Your task to perform on an android device: star an email in the gmail app Image 0: 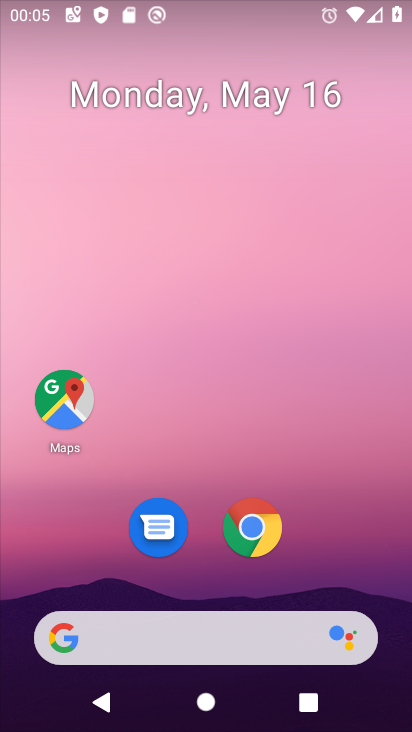
Step 0: drag from (366, 573) to (279, 177)
Your task to perform on an android device: star an email in the gmail app Image 1: 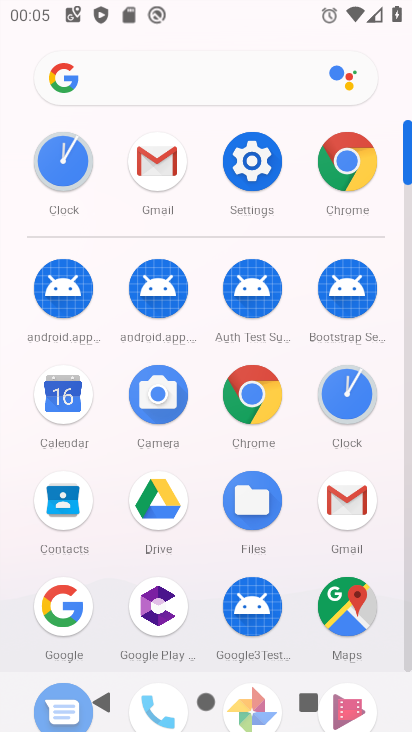
Step 1: click (140, 187)
Your task to perform on an android device: star an email in the gmail app Image 2: 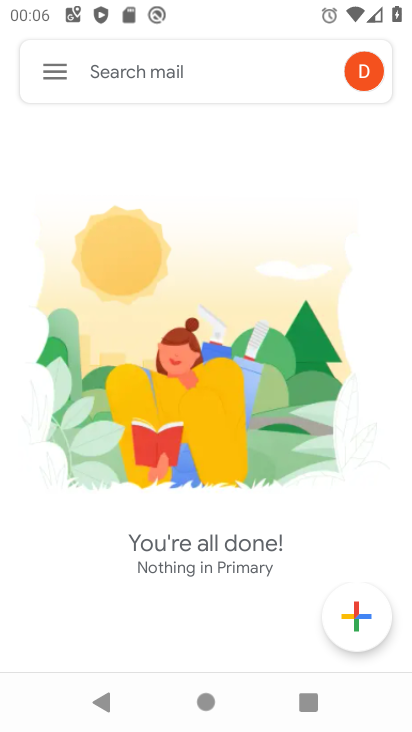
Step 2: click (51, 84)
Your task to perform on an android device: star an email in the gmail app Image 3: 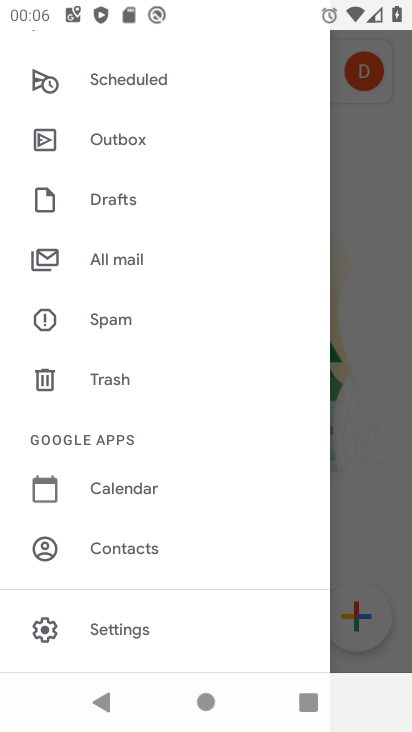
Step 3: click (111, 246)
Your task to perform on an android device: star an email in the gmail app Image 4: 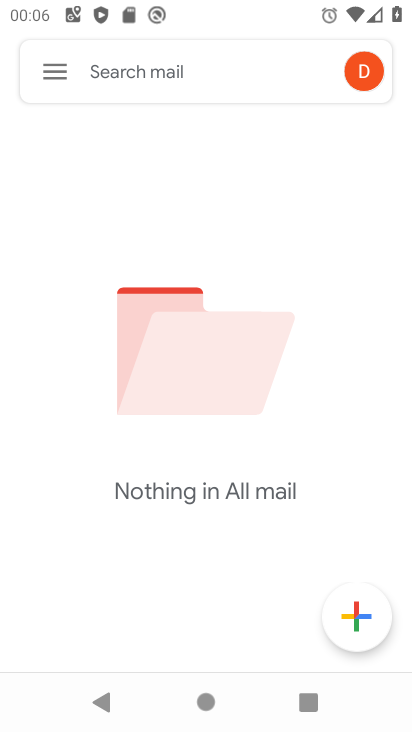
Step 4: click (55, 87)
Your task to perform on an android device: star an email in the gmail app Image 5: 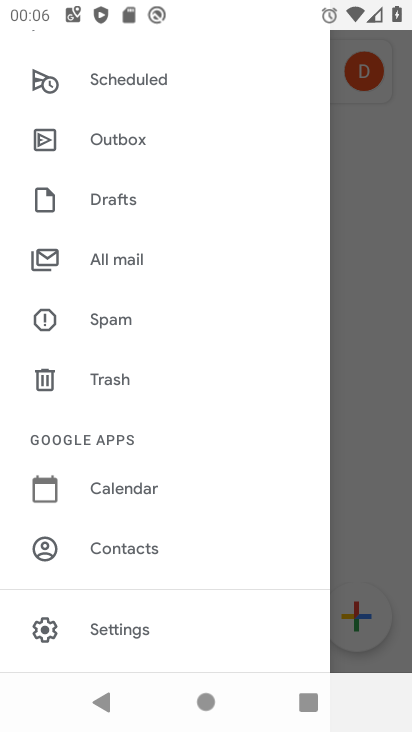
Step 5: task complete